Your task to perform on an android device: Do I have any events today? Image 0: 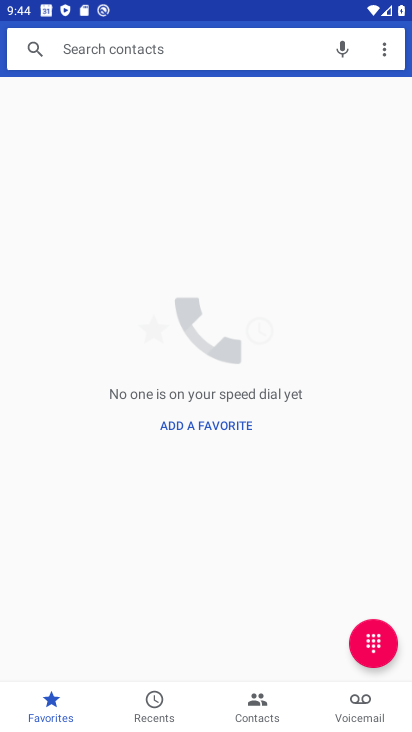
Step 0: press home button
Your task to perform on an android device: Do I have any events today? Image 1: 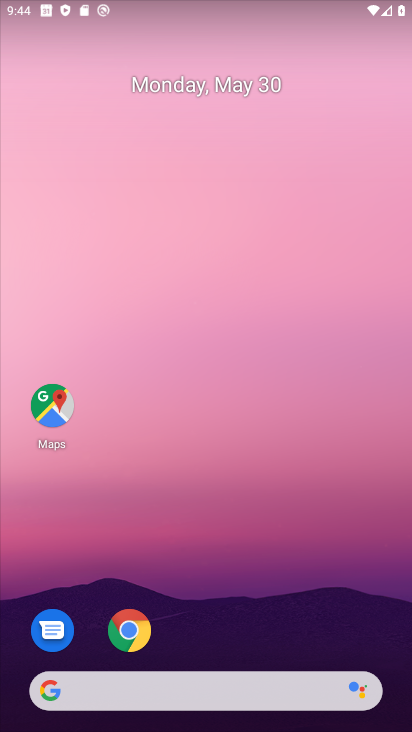
Step 1: drag from (253, 629) to (219, 26)
Your task to perform on an android device: Do I have any events today? Image 2: 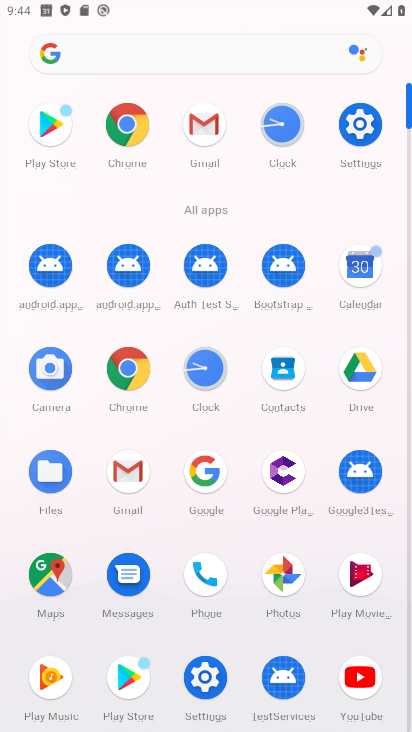
Step 2: click (385, 272)
Your task to perform on an android device: Do I have any events today? Image 3: 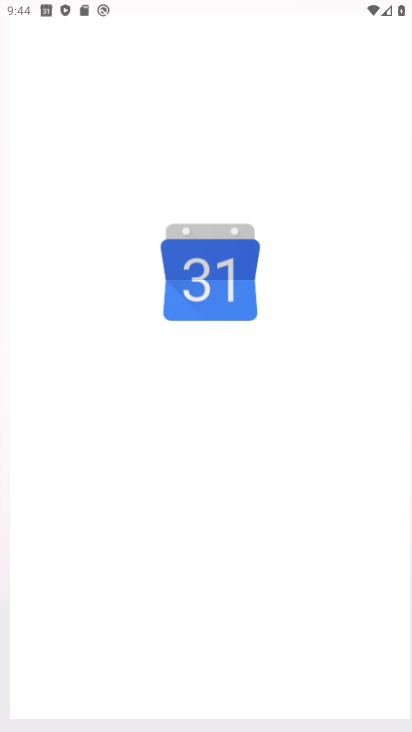
Step 3: task complete